Your task to perform on an android device: Search for the best rated kitchen reno kits on Lowes.com Image 0: 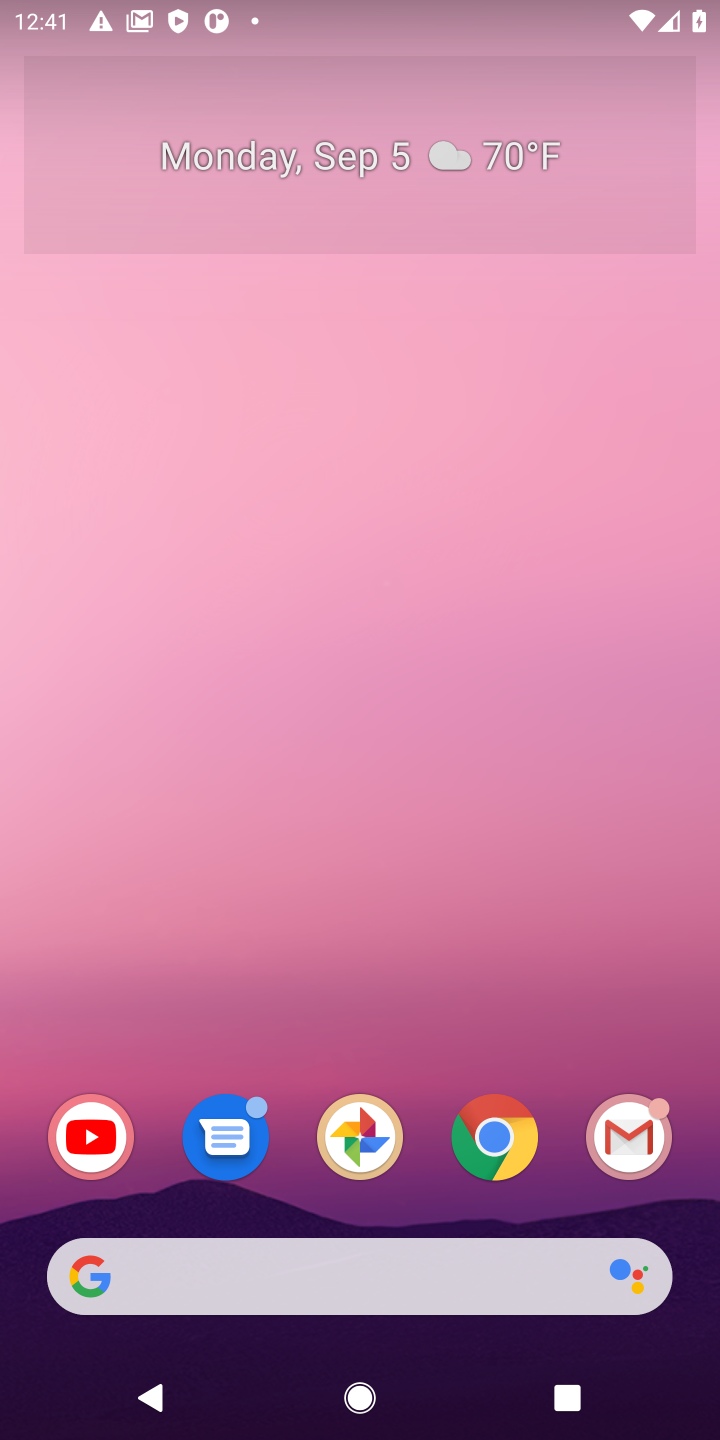
Step 0: click (535, 1127)
Your task to perform on an android device: Search for the best rated kitchen reno kits on Lowes.com Image 1: 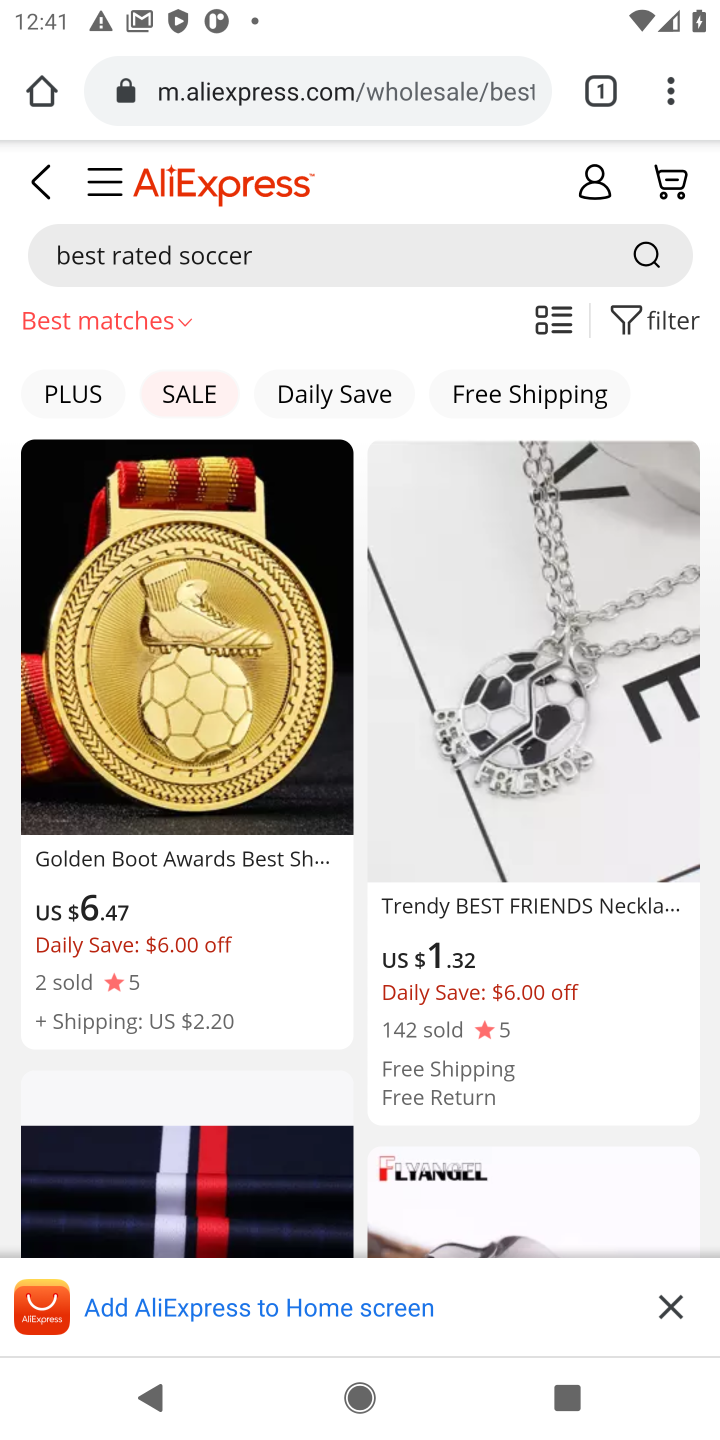
Step 1: press home button
Your task to perform on an android device: Search for the best rated kitchen reno kits on Lowes.com Image 2: 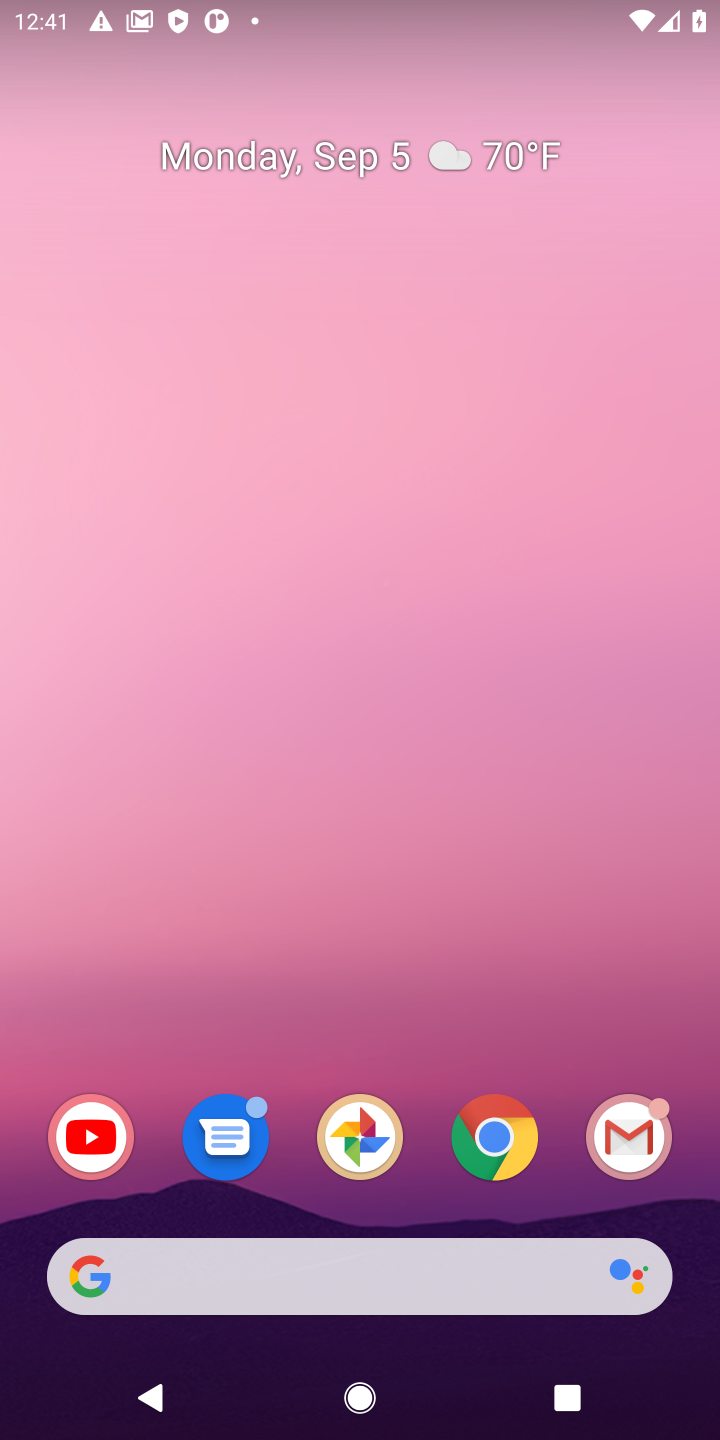
Step 2: click (497, 1161)
Your task to perform on an android device: Search for the best rated kitchen reno kits on Lowes.com Image 3: 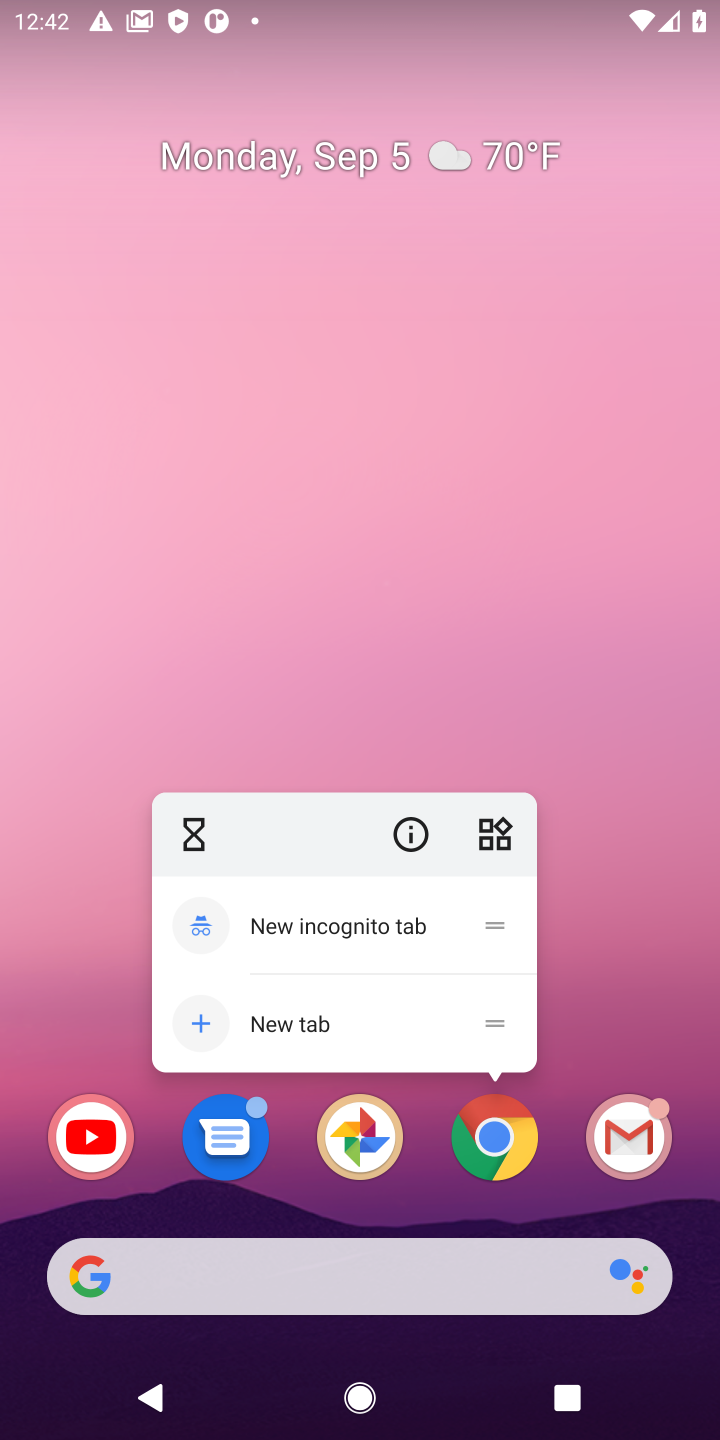
Step 3: click (475, 1109)
Your task to perform on an android device: Search for the best rated kitchen reno kits on Lowes.com Image 4: 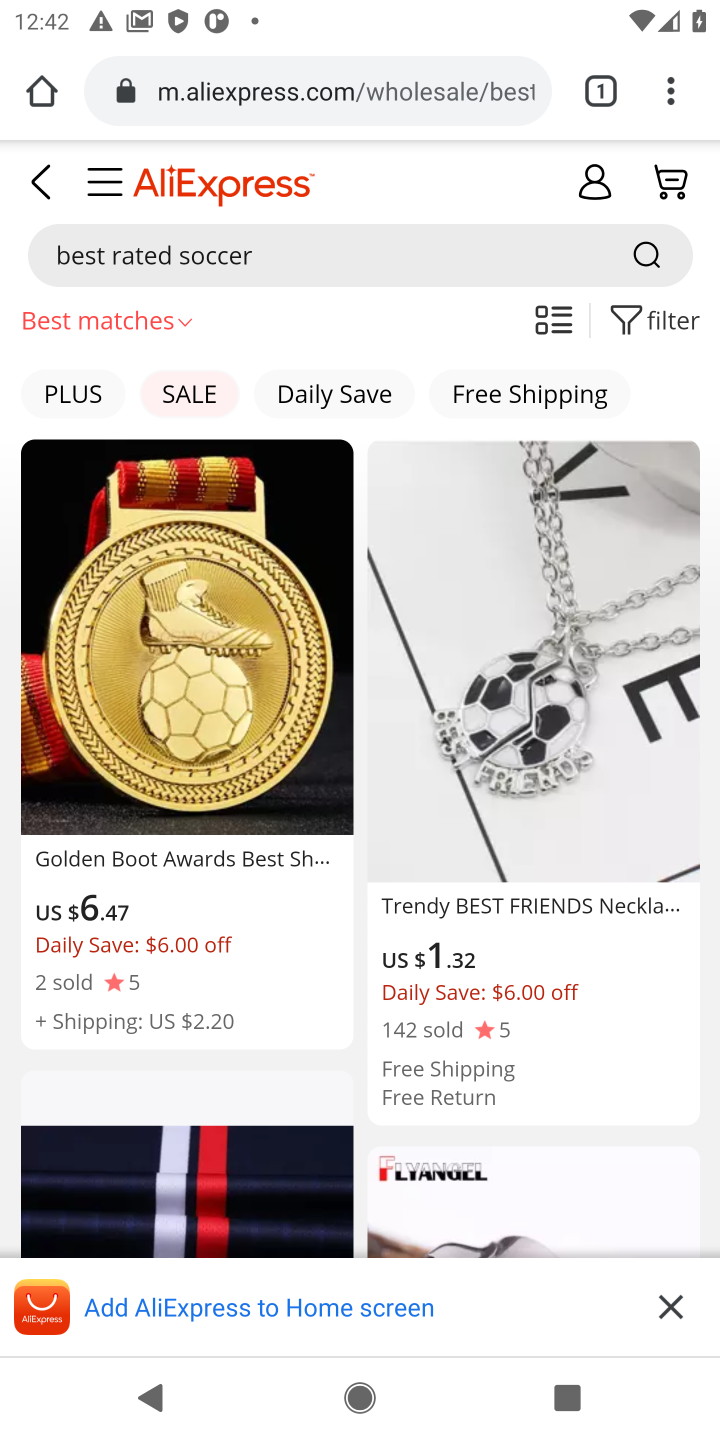
Step 4: click (314, 88)
Your task to perform on an android device: Search for the best rated kitchen reno kits on Lowes.com Image 5: 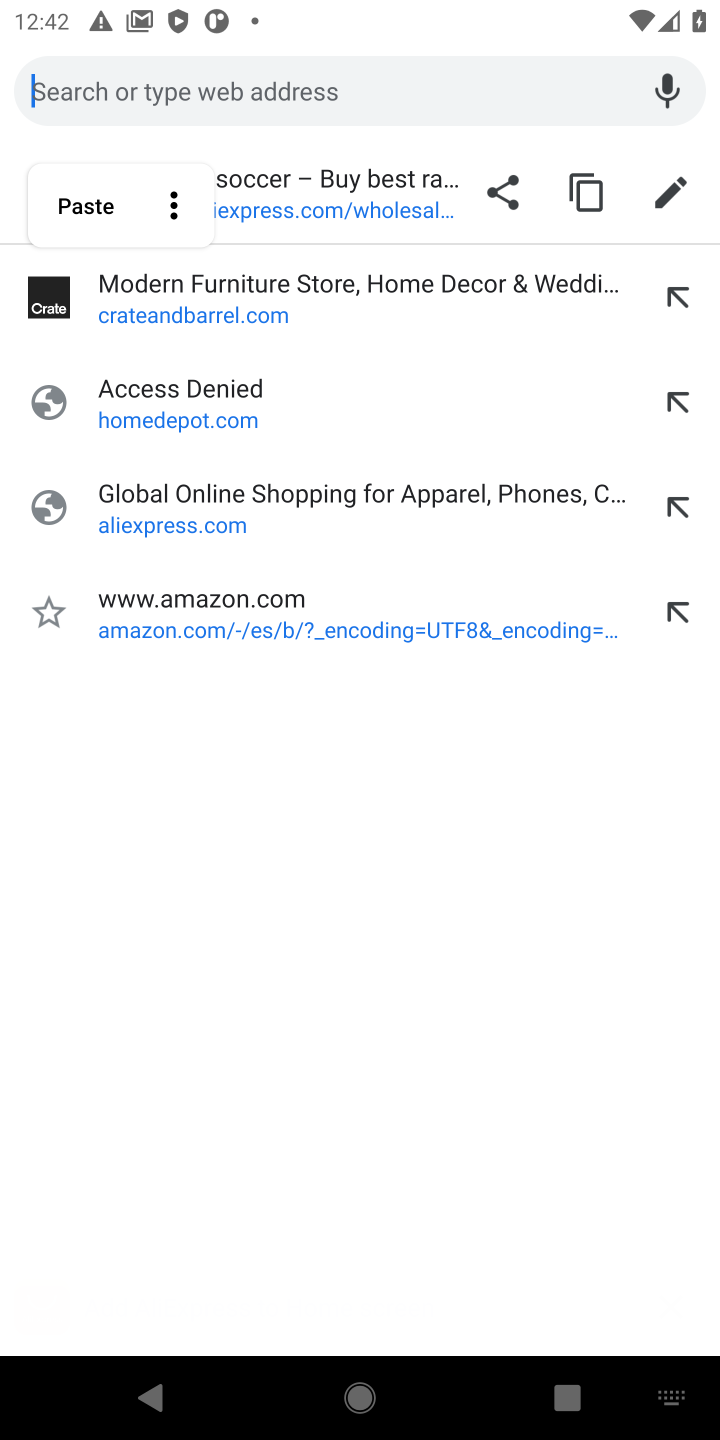
Step 5: type "lowes.com"
Your task to perform on an android device: Search for the best rated kitchen reno kits on Lowes.com Image 6: 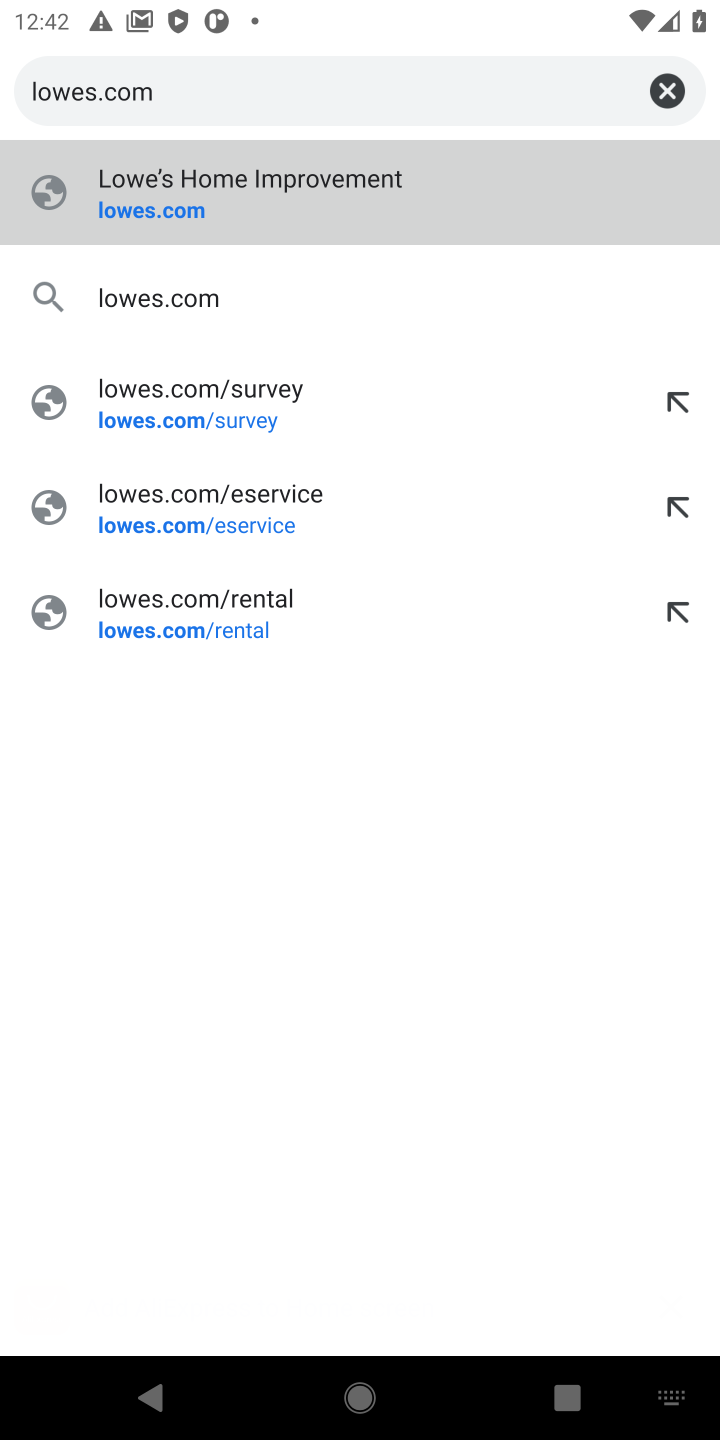
Step 6: click (406, 197)
Your task to perform on an android device: Search for the best rated kitchen reno kits on Lowes.com Image 7: 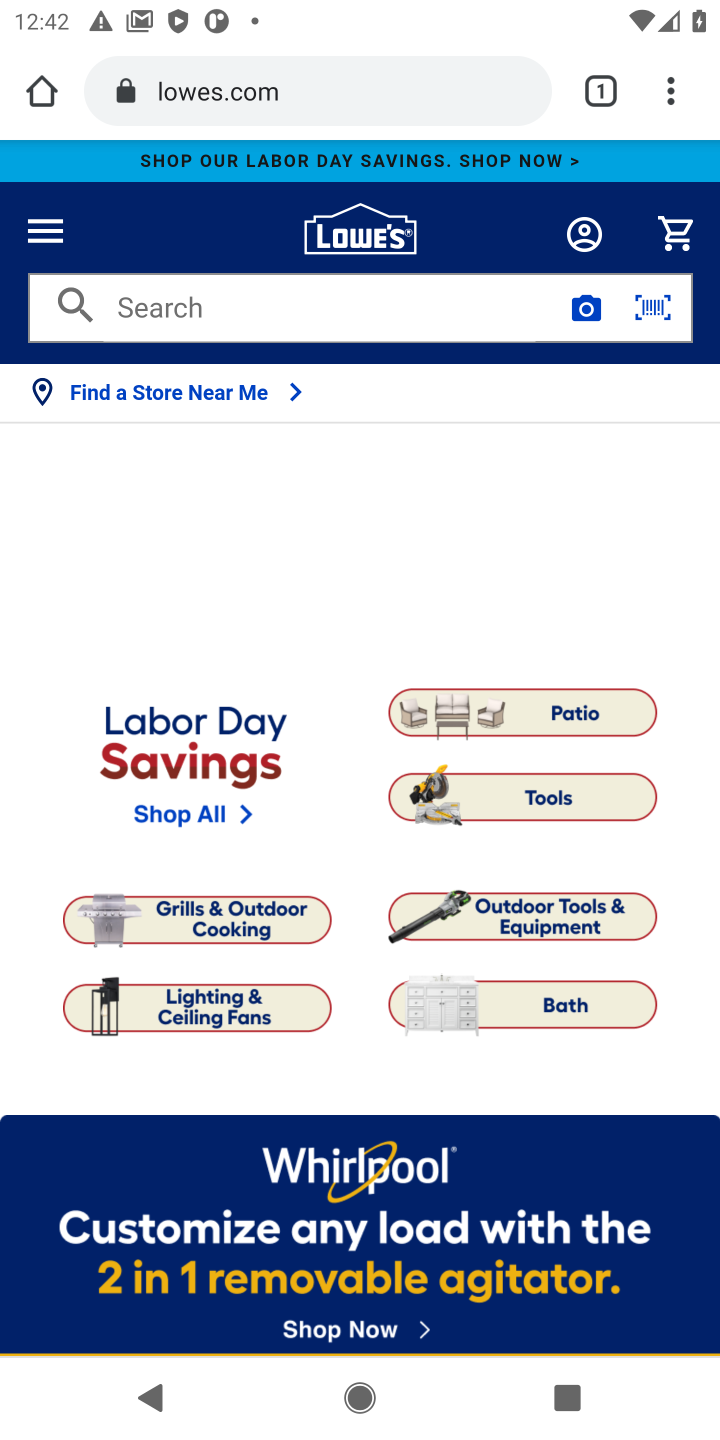
Step 7: click (393, 301)
Your task to perform on an android device: Search for the best rated kitchen reno kits on Lowes.com Image 8: 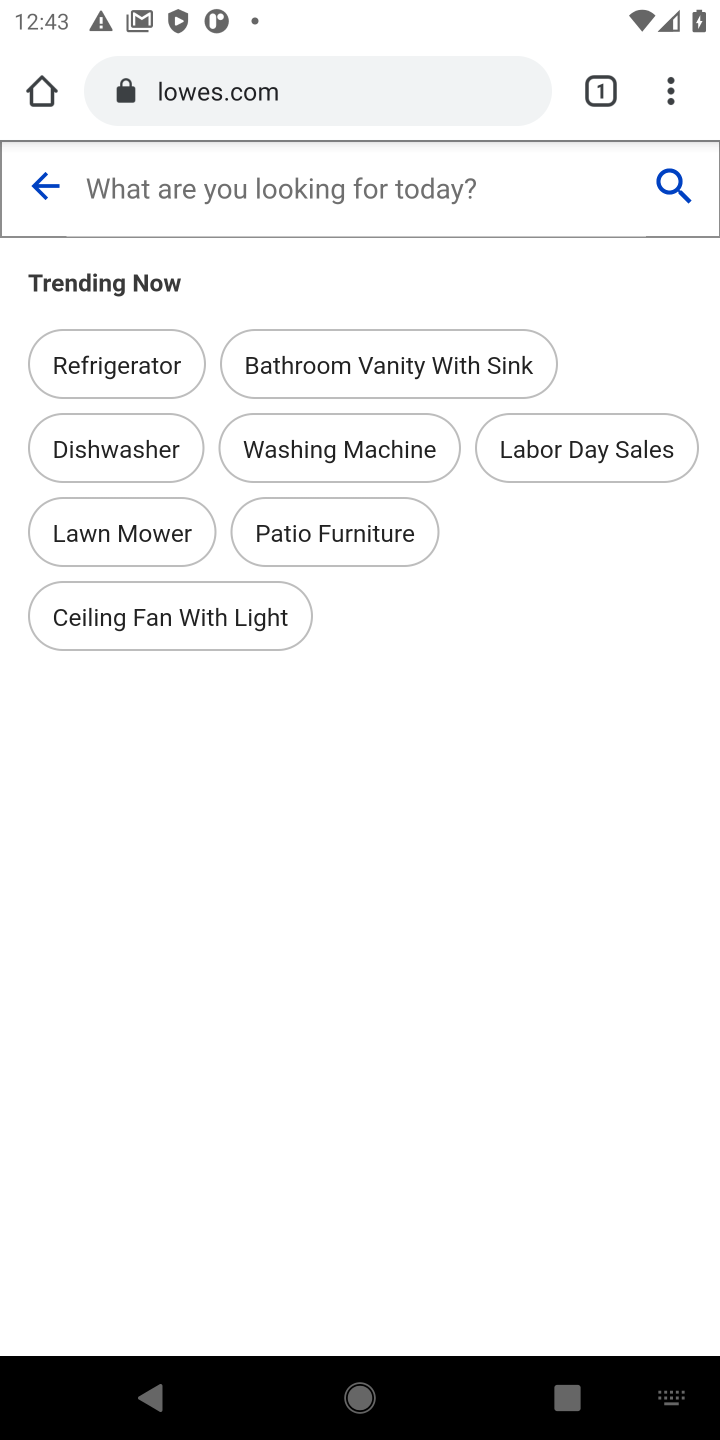
Step 8: type "best rated kitchen reno kits"
Your task to perform on an android device: Search for the best rated kitchen reno kits on Lowes.com Image 9: 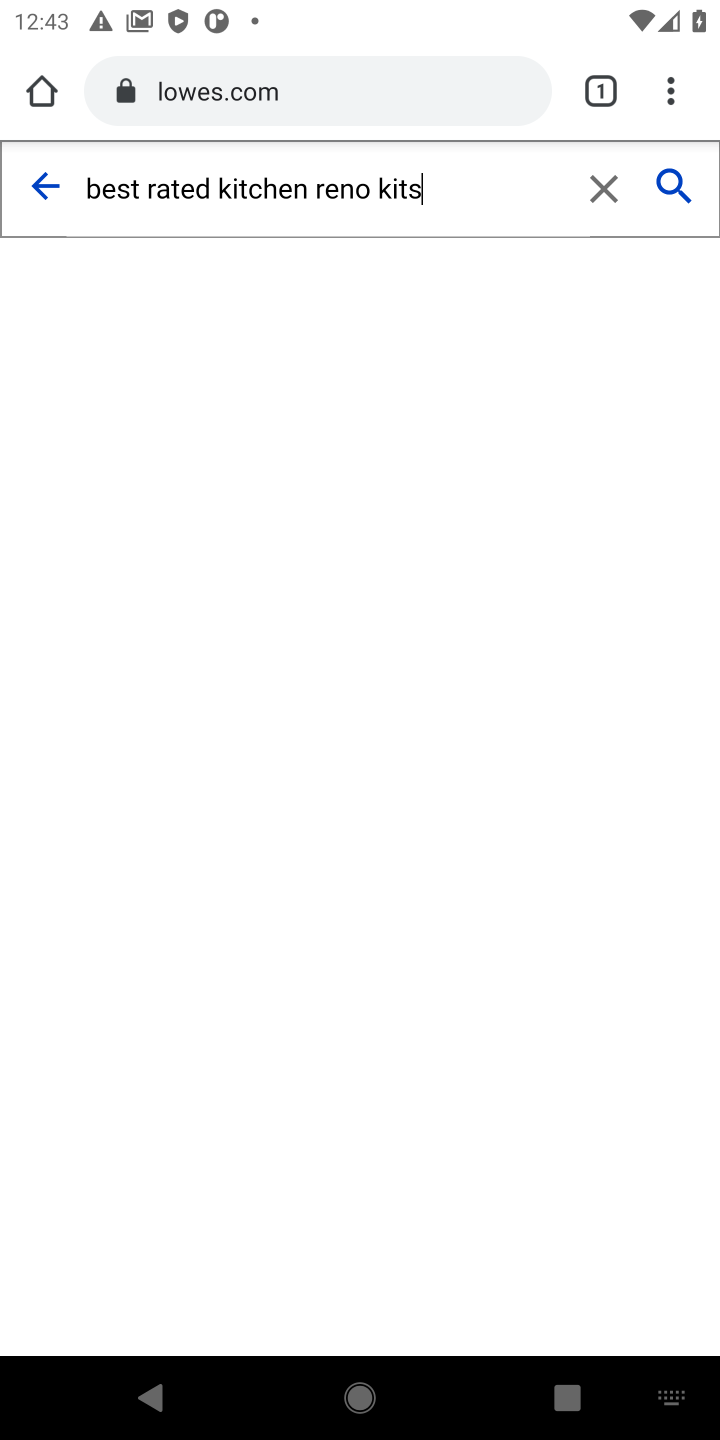
Step 9: press enter
Your task to perform on an android device: Search for the best rated kitchen reno kits on Lowes.com Image 10: 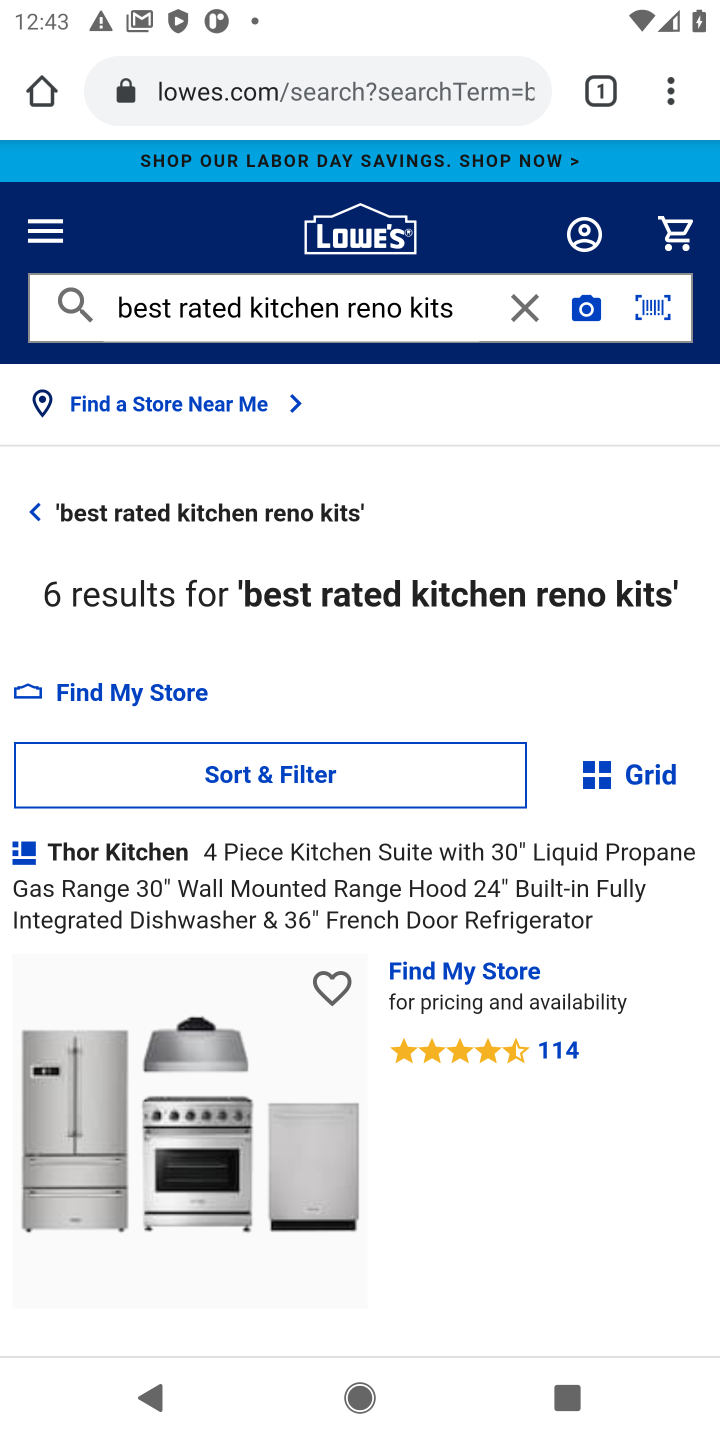
Step 10: task complete